Your task to perform on an android device: turn on translation in the chrome app Image 0: 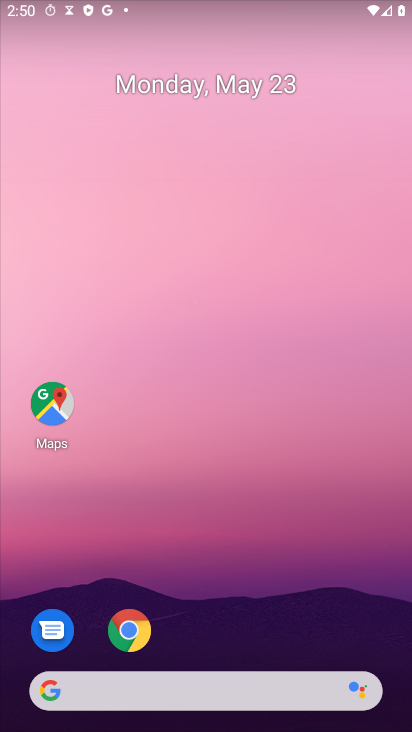
Step 0: drag from (355, 453) to (412, 55)
Your task to perform on an android device: turn on translation in the chrome app Image 1: 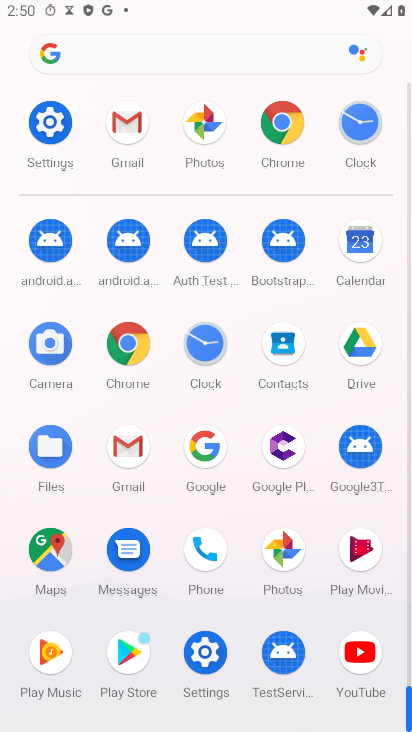
Step 1: click (291, 140)
Your task to perform on an android device: turn on translation in the chrome app Image 2: 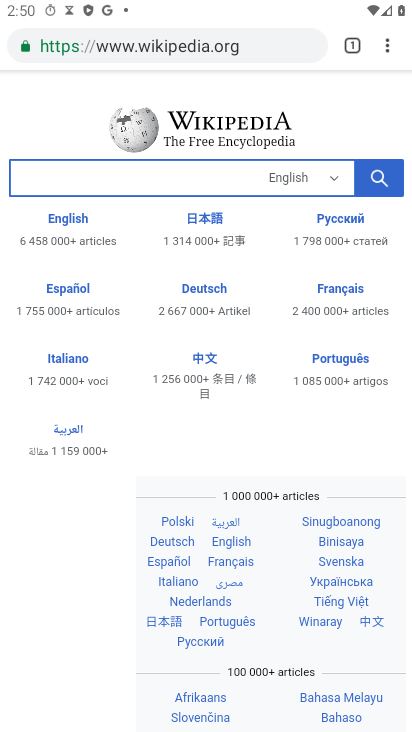
Step 2: drag from (388, 51) to (210, 553)
Your task to perform on an android device: turn on translation in the chrome app Image 3: 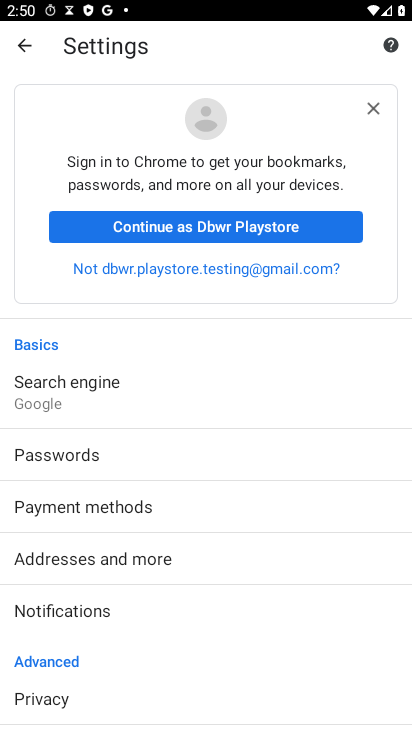
Step 3: drag from (231, 653) to (233, 234)
Your task to perform on an android device: turn on translation in the chrome app Image 4: 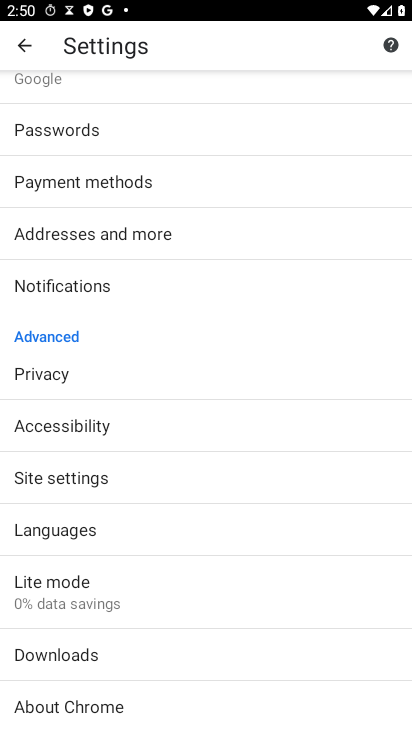
Step 4: drag from (132, 693) to (68, 372)
Your task to perform on an android device: turn on translation in the chrome app Image 5: 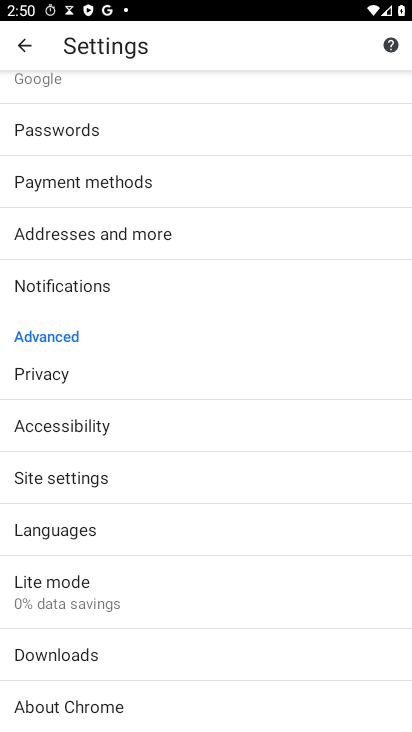
Step 5: click (99, 524)
Your task to perform on an android device: turn on translation in the chrome app Image 6: 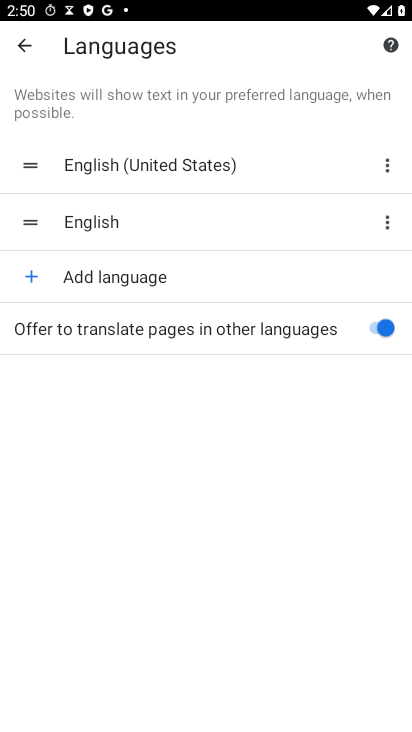
Step 6: task complete